Your task to perform on an android device: turn on location history Image 0: 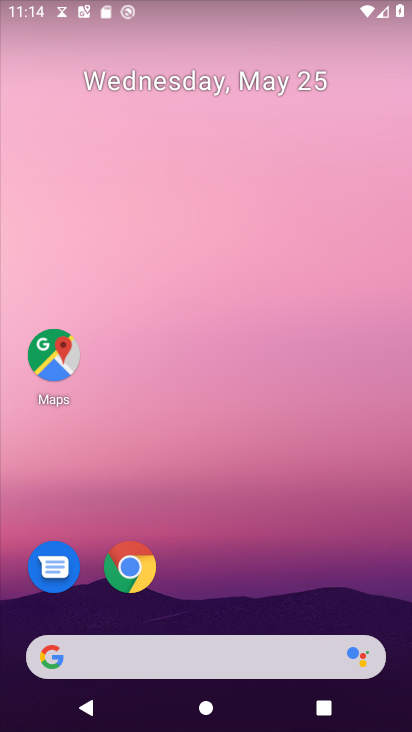
Step 0: drag from (296, 615) to (292, 144)
Your task to perform on an android device: turn on location history Image 1: 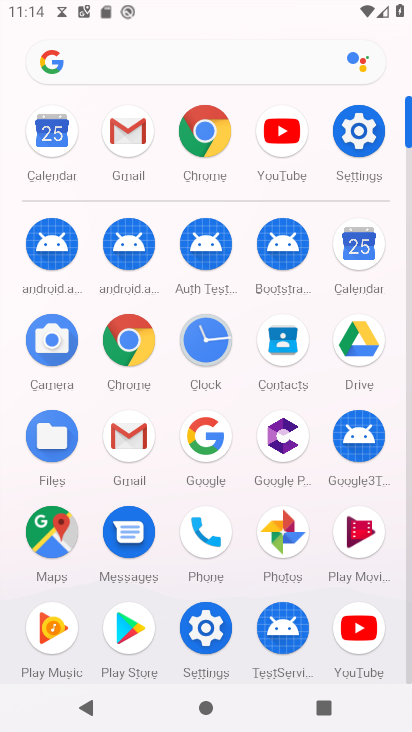
Step 1: click (355, 135)
Your task to perform on an android device: turn on location history Image 2: 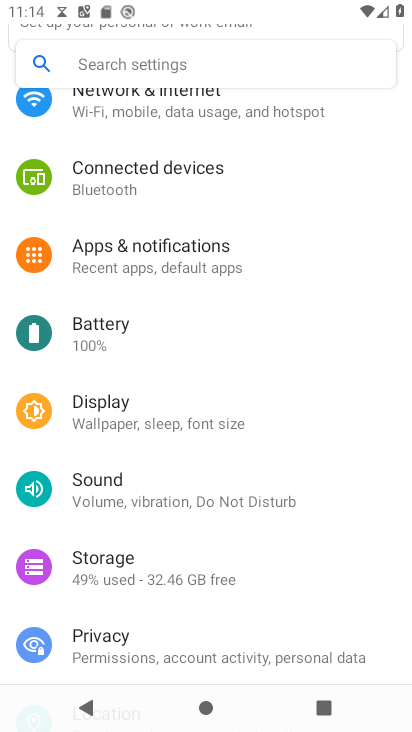
Step 2: drag from (169, 607) to (171, 279)
Your task to perform on an android device: turn on location history Image 3: 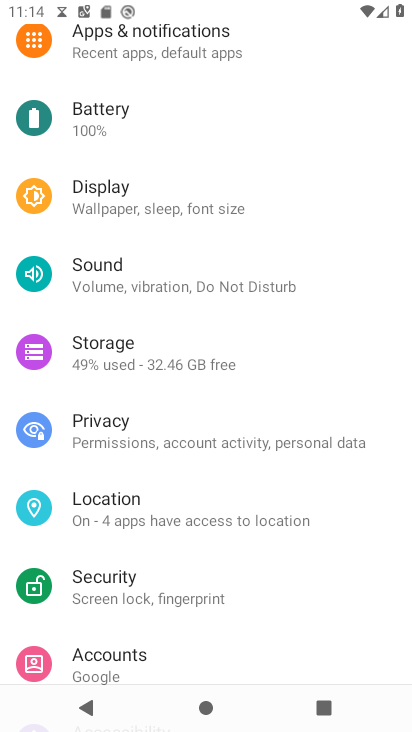
Step 3: click (165, 514)
Your task to perform on an android device: turn on location history Image 4: 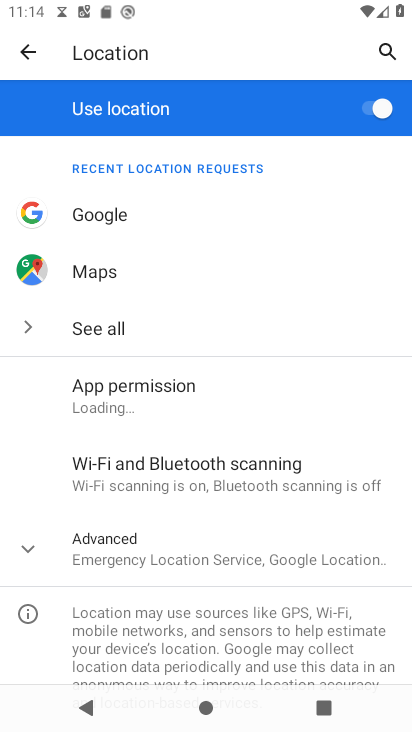
Step 4: click (209, 552)
Your task to perform on an android device: turn on location history Image 5: 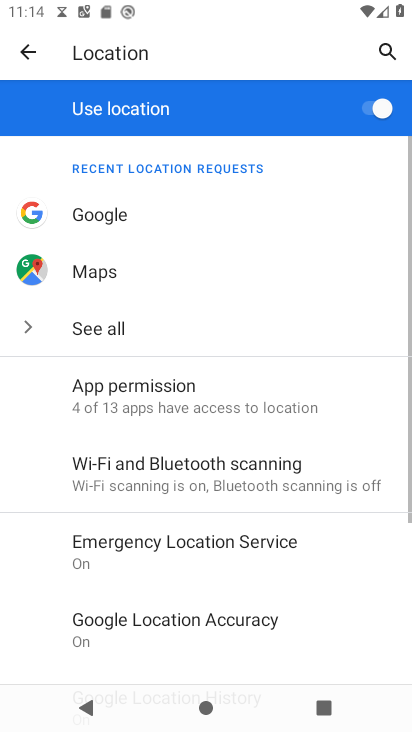
Step 5: drag from (209, 552) to (222, 341)
Your task to perform on an android device: turn on location history Image 6: 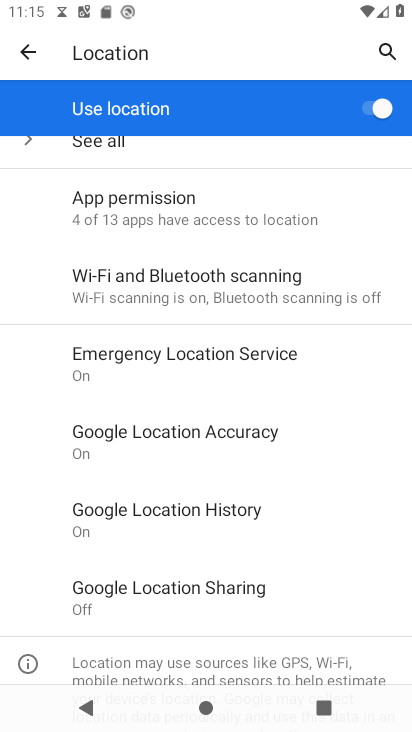
Step 6: click (226, 517)
Your task to perform on an android device: turn on location history Image 7: 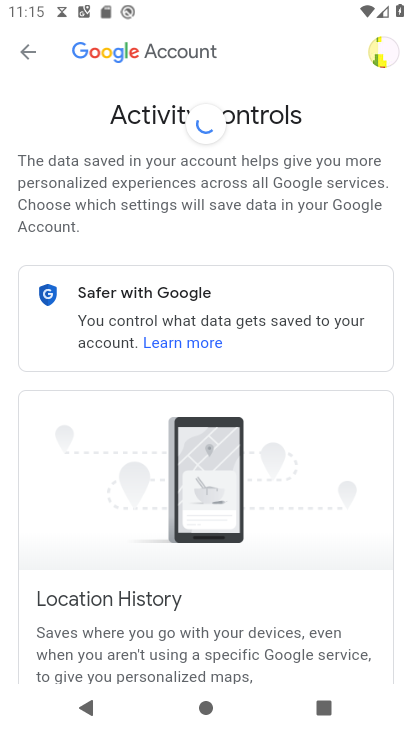
Step 7: drag from (301, 607) to (311, 241)
Your task to perform on an android device: turn on location history Image 8: 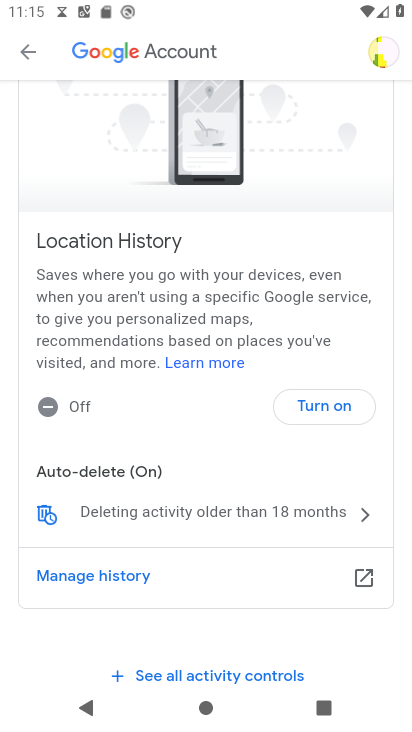
Step 8: click (318, 410)
Your task to perform on an android device: turn on location history Image 9: 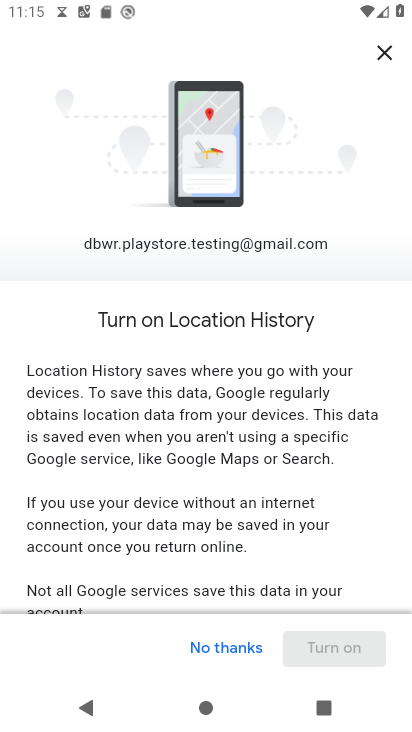
Step 9: drag from (297, 574) to (280, 218)
Your task to perform on an android device: turn on location history Image 10: 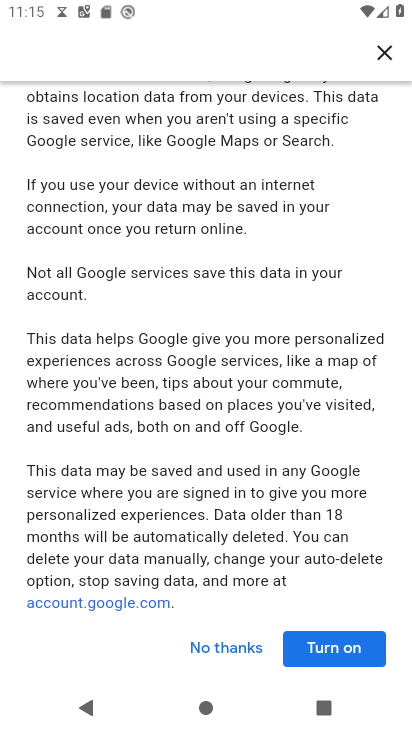
Step 10: click (327, 646)
Your task to perform on an android device: turn on location history Image 11: 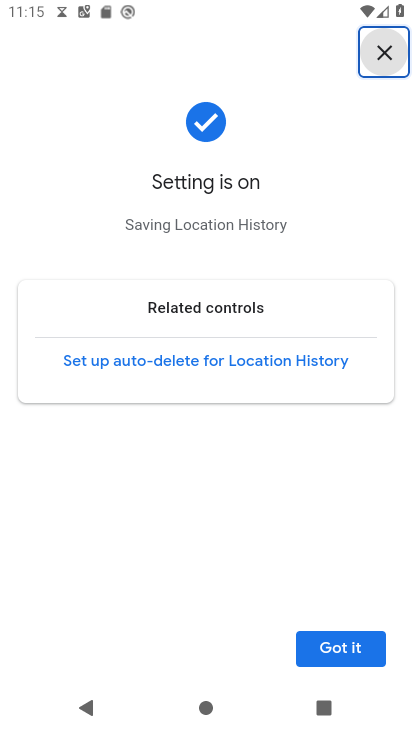
Step 11: click (327, 646)
Your task to perform on an android device: turn on location history Image 12: 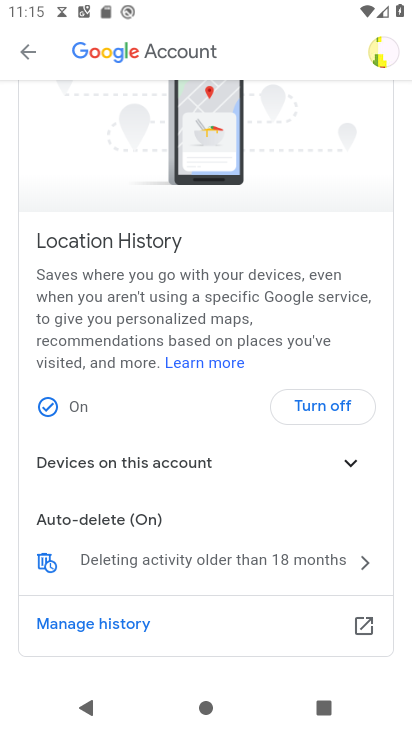
Step 12: task complete